Your task to perform on an android device: turn notification dots off Image 0: 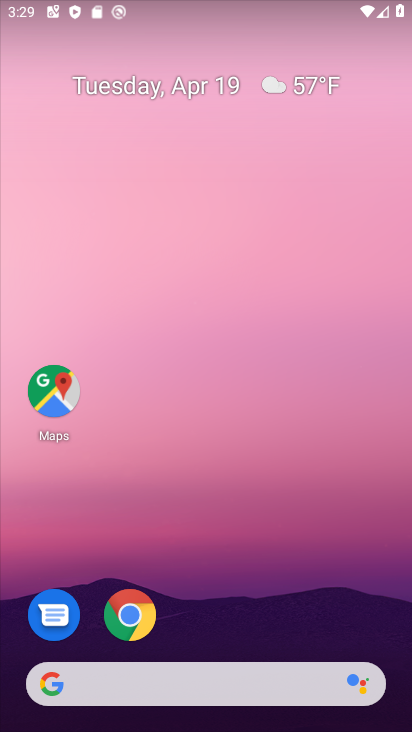
Step 0: drag from (231, 417) to (224, 199)
Your task to perform on an android device: turn notification dots off Image 1: 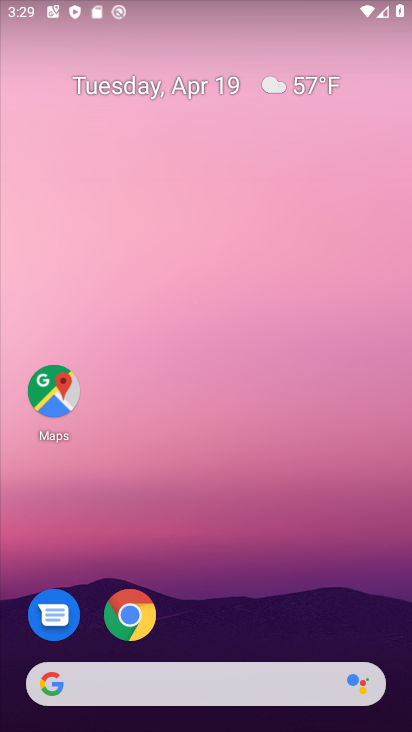
Step 1: drag from (230, 613) to (239, 132)
Your task to perform on an android device: turn notification dots off Image 2: 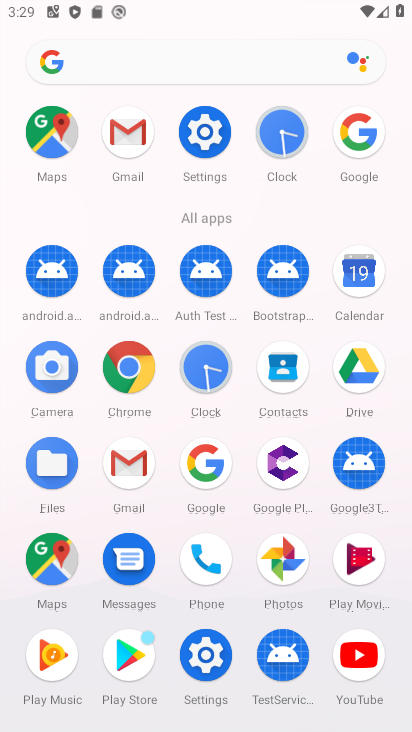
Step 2: click (204, 148)
Your task to perform on an android device: turn notification dots off Image 3: 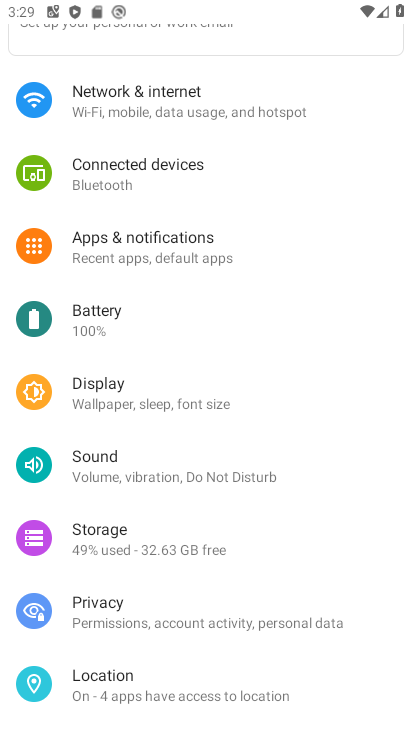
Step 3: click (163, 255)
Your task to perform on an android device: turn notification dots off Image 4: 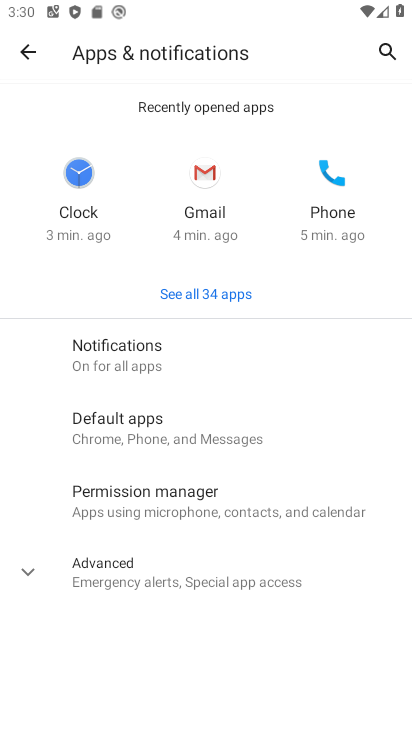
Step 4: click (147, 346)
Your task to perform on an android device: turn notification dots off Image 5: 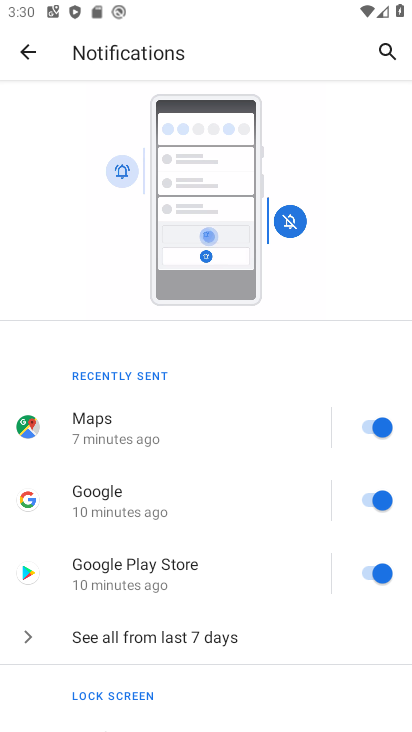
Step 5: drag from (226, 673) to (234, 277)
Your task to perform on an android device: turn notification dots off Image 6: 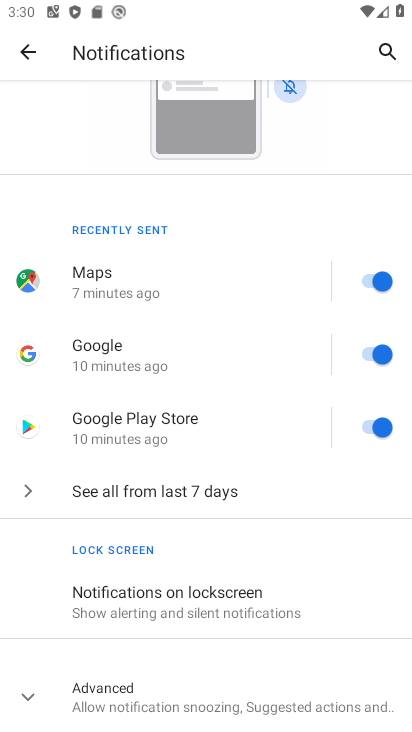
Step 6: drag from (259, 637) to (262, 344)
Your task to perform on an android device: turn notification dots off Image 7: 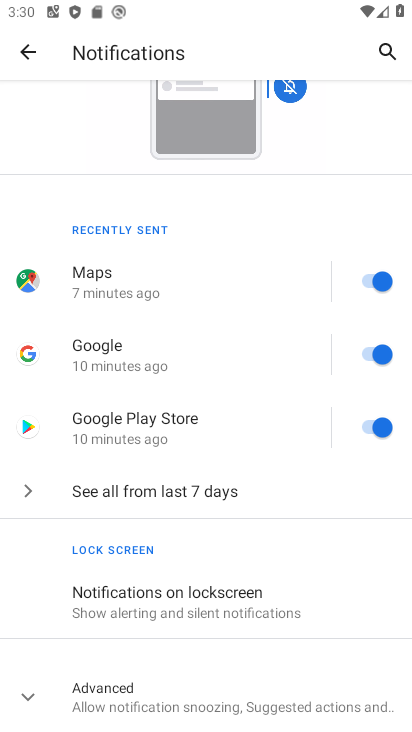
Step 7: drag from (273, 634) to (263, 331)
Your task to perform on an android device: turn notification dots off Image 8: 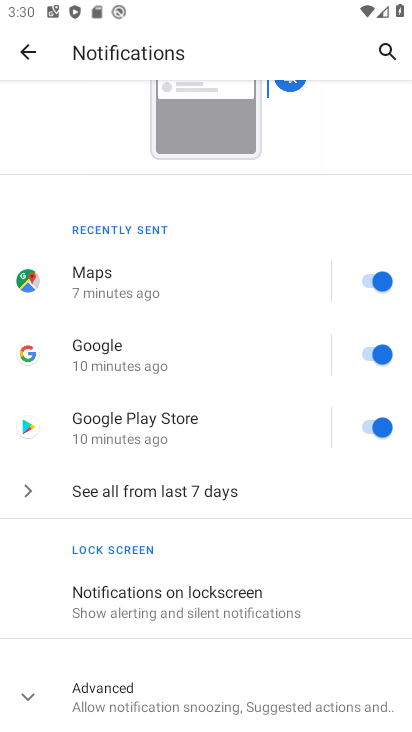
Step 8: click (210, 712)
Your task to perform on an android device: turn notification dots off Image 9: 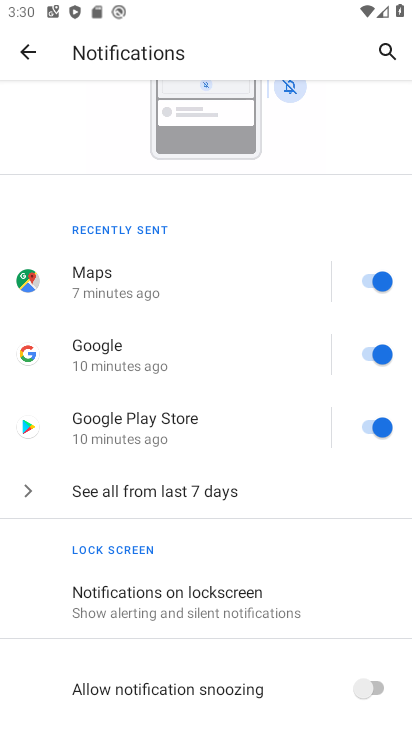
Step 9: drag from (220, 658) to (250, 383)
Your task to perform on an android device: turn notification dots off Image 10: 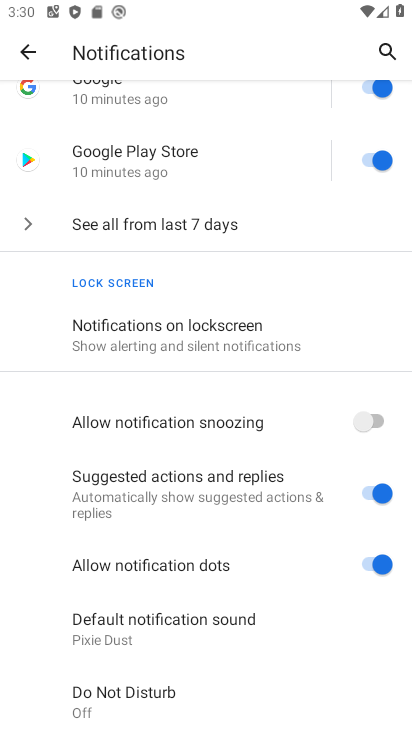
Step 10: click (372, 568)
Your task to perform on an android device: turn notification dots off Image 11: 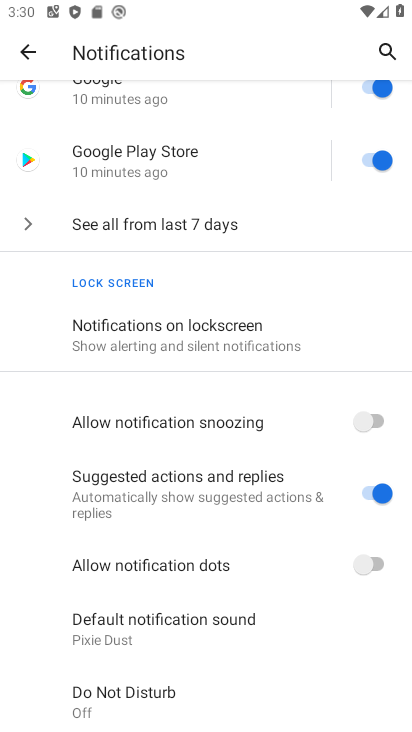
Step 11: task complete